Your task to perform on an android device: Go to Yahoo.com Image 0: 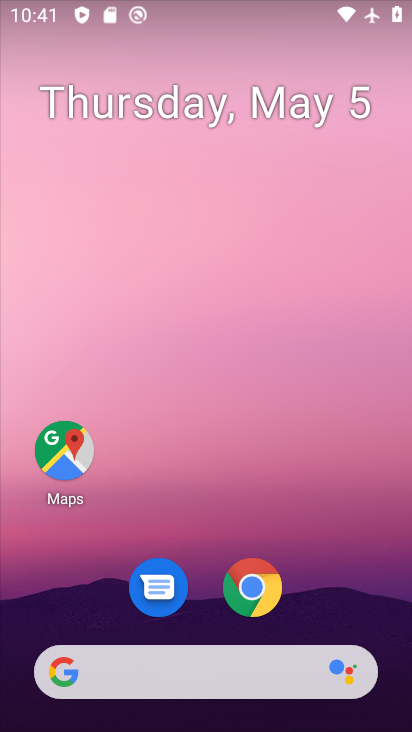
Step 0: drag from (325, 556) to (264, 0)
Your task to perform on an android device: Go to Yahoo.com Image 1: 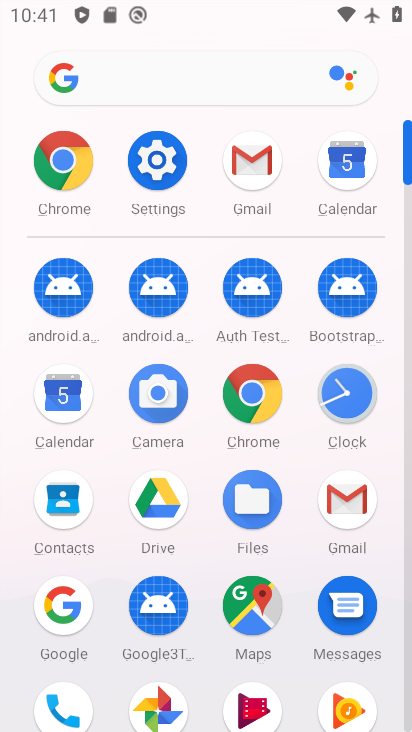
Step 1: click (57, 157)
Your task to perform on an android device: Go to Yahoo.com Image 2: 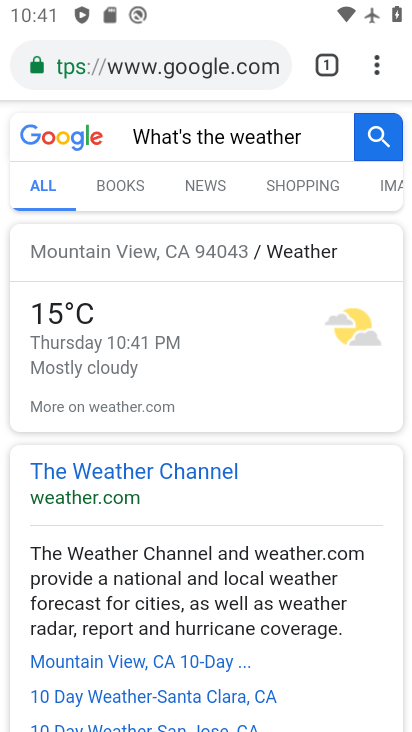
Step 2: click (226, 55)
Your task to perform on an android device: Go to Yahoo.com Image 3: 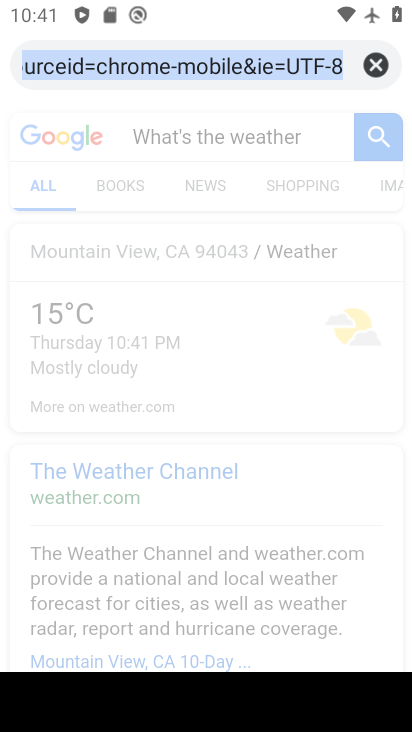
Step 3: click (379, 54)
Your task to perform on an android device: Go to Yahoo.com Image 4: 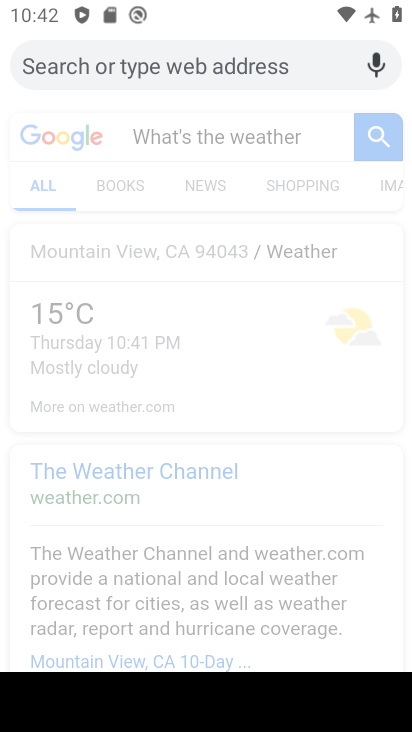
Step 4: type "Yahoo.com"
Your task to perform on an android device: Go to Yahoo.com Image 5: 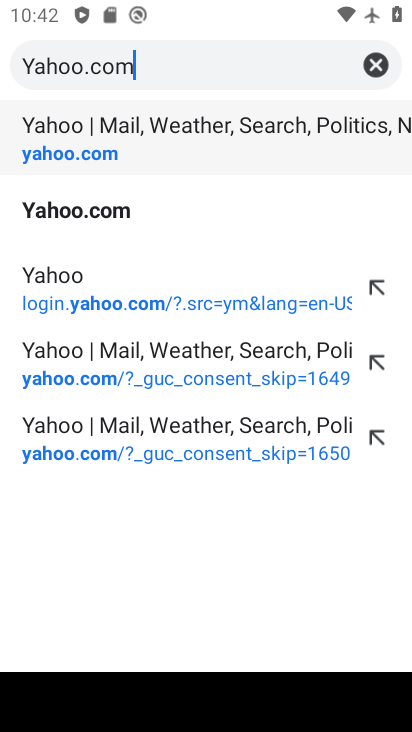
Step 5: type ""
Your task to perform on an android device: Go to Yahoo.com Image 6: 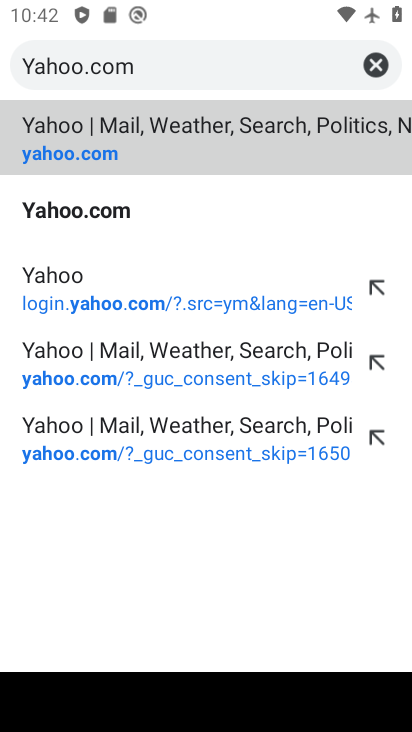
Step 6: click (219, 137)
Your task to perform on an android device: Go to Yahoo.com Image 7: 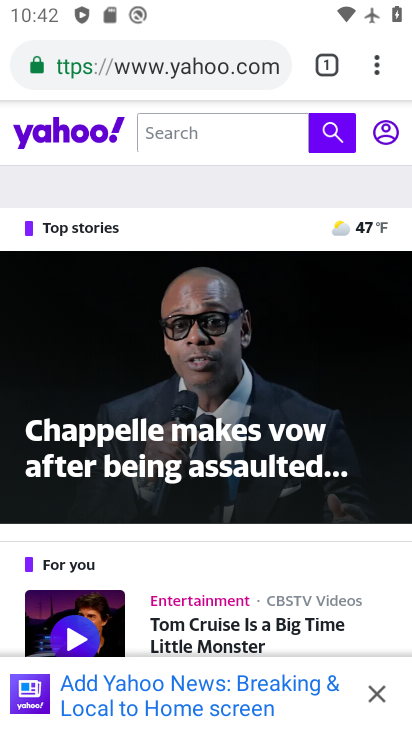
Step 7: task complete